Your task to perform on an android device: snooze an email in the gmail app Image 0: 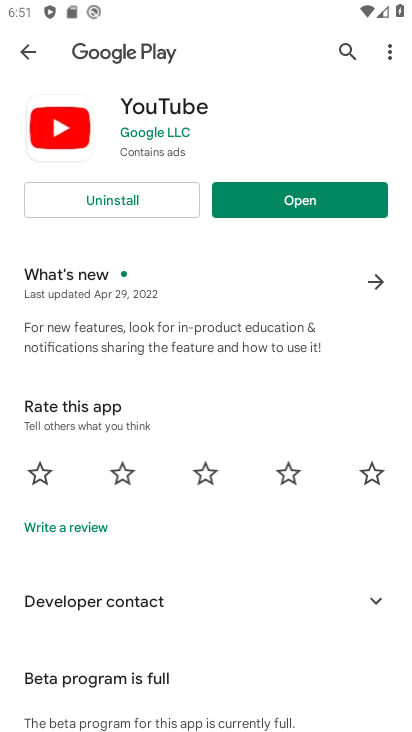
Step 0: press home button
Your task to perform on an android device: snooze an email in the gmail app Image 1: 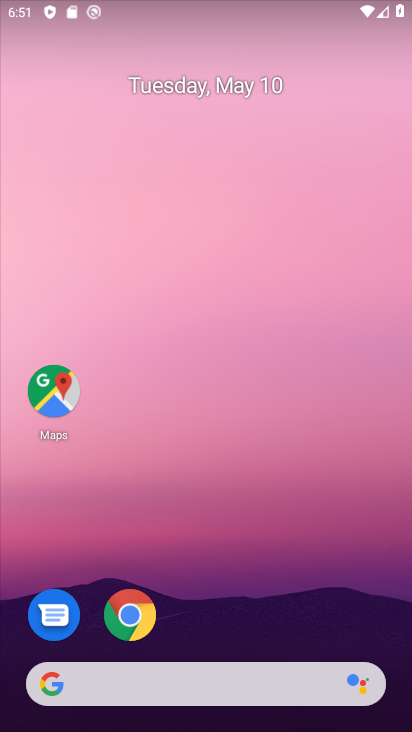
Step 1: drag from (240, 563) to (137, 139)
Your task to perform on an android device: snooze an email in the gmail app Image 2: 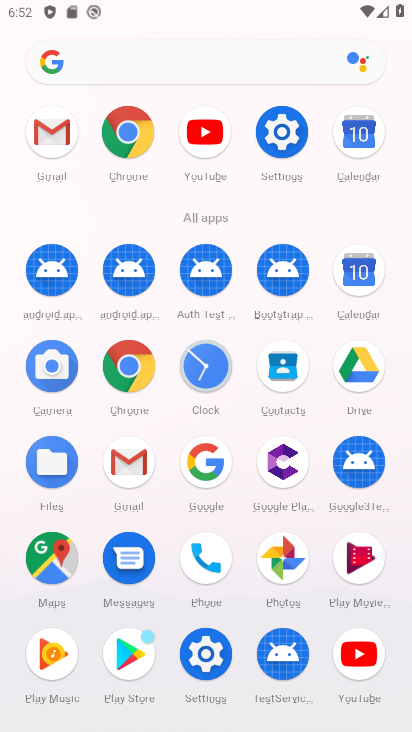
Step 2: click (47, 135)
Your task to perform on an android device: snooze an email in the gmail app Image 3: 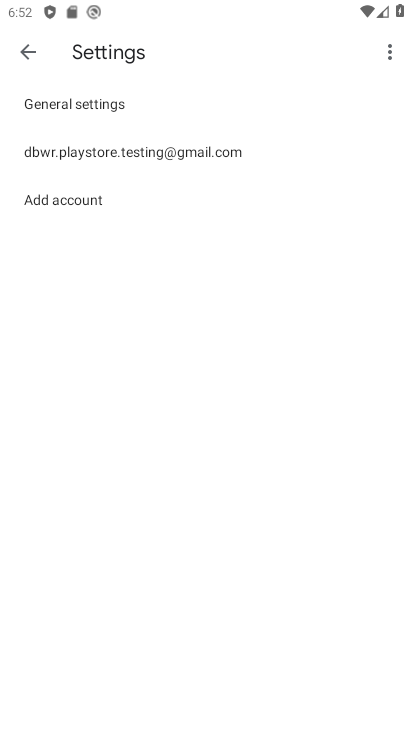
Step 3: click (20, 55)
Your task to perform on an android device: snooze an email in the gmail app Image 4: 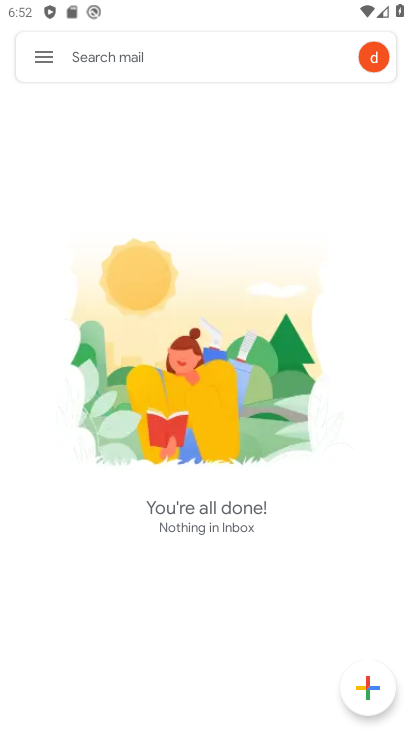
Step 4: click (40, 54)
Your task to perform on an android device: snooze an email in the gmail app Image 5: 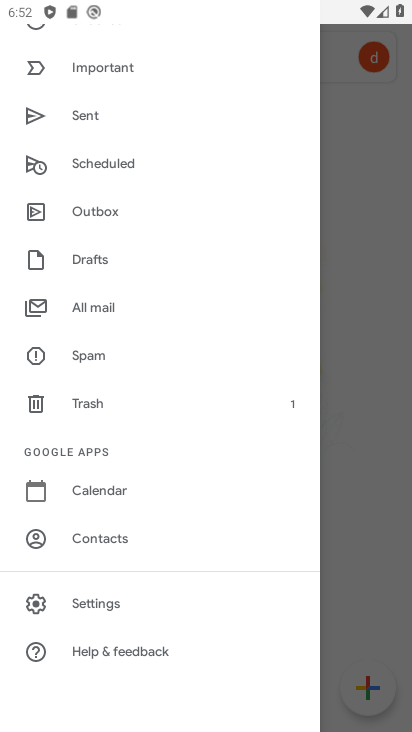
Step 5: click (95, 301)
Your task to perform on an android device: snooze an email in the gmail app Image 6: 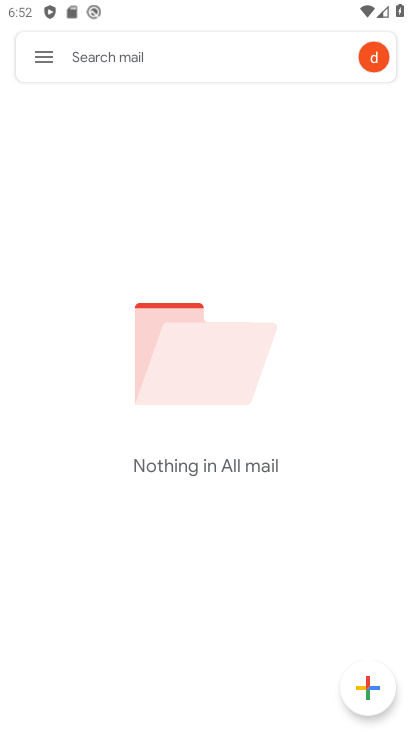
Step 6: task complete